Your task to perform on an android device: toggle notification dots Image 0: 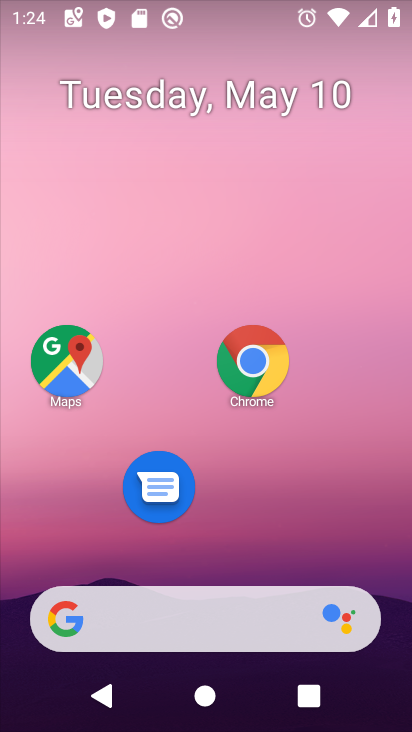
Step 0: drag from (332, 460) to (289, 55)
Your task to perform on an android device: toggle notification dots Image 1: 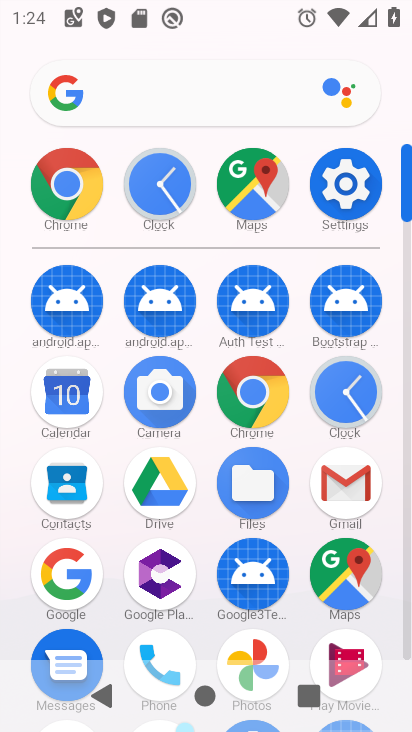
Step 1: click (329, 196)
Your task to perform on an android device: toggle notification dots Image 2: 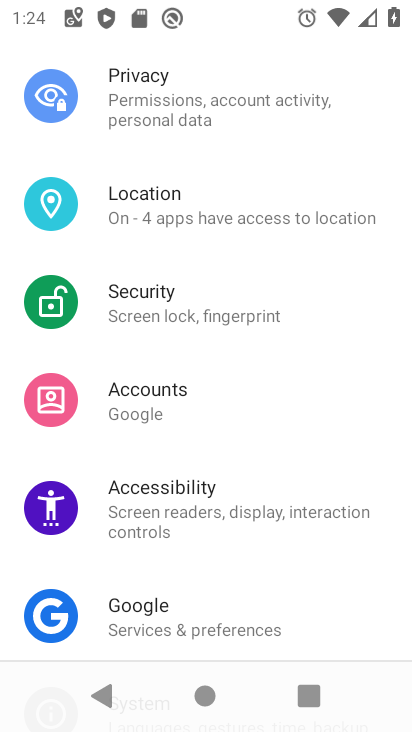
Step 2: drag from (205, 503) to (185, 123)
Your task to perform on an android device: toggle notification dots Image 3: 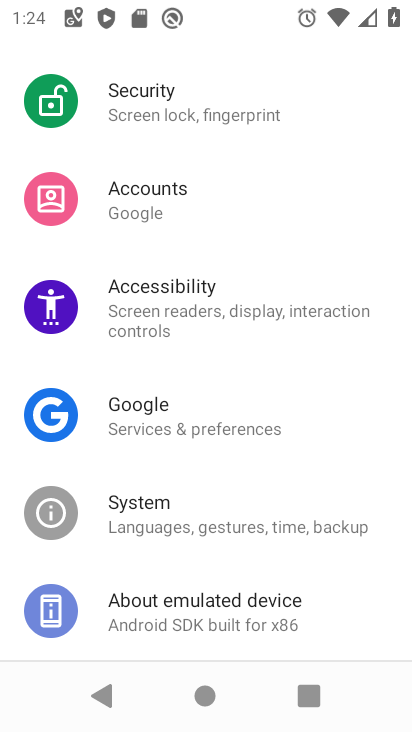
Step 3: drag from (169, 275) to (259, 697)
Your task to perform on an android device: toggle notification dots Image 4: 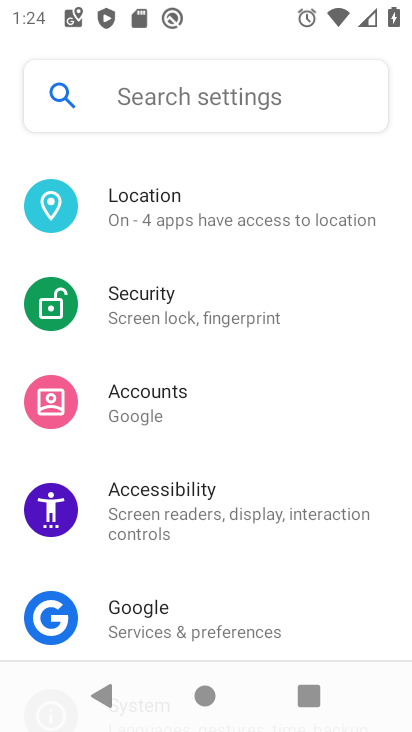
Step 4: drag from (173, 386) to (206, 622)
Your task to perform on an android device: toggle notification dots Image 5: 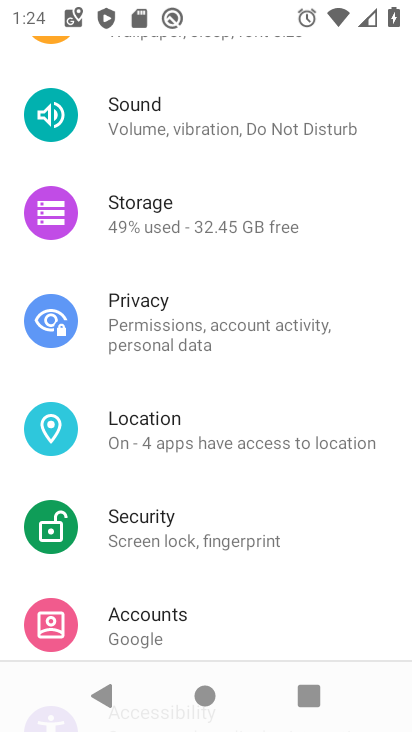
Step 5: drag from (104, 270) to (118, 476)
Your task to perform on an android device: toggle notification dots Image 6: 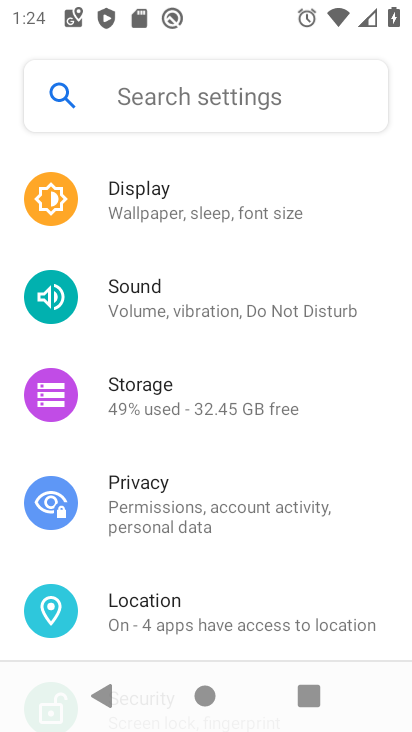
Step 6: click (118, 476)
Your task to perform on an android device: toggle notification dots Image 7: 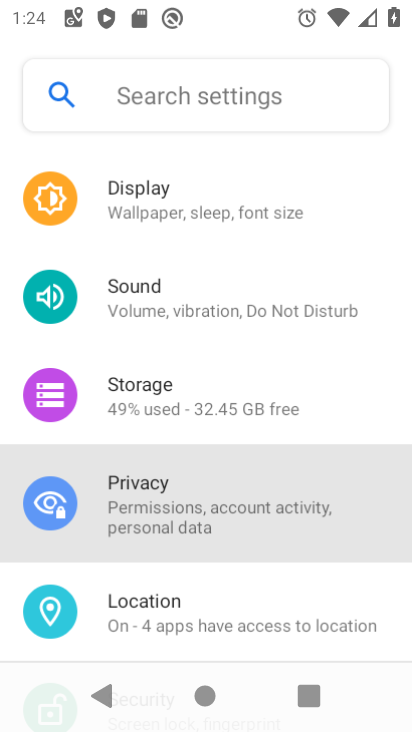
Step 7: drag from (202, 194) to (237, 413)
Your task to perform on an android device: toggle notification dots Image 8: 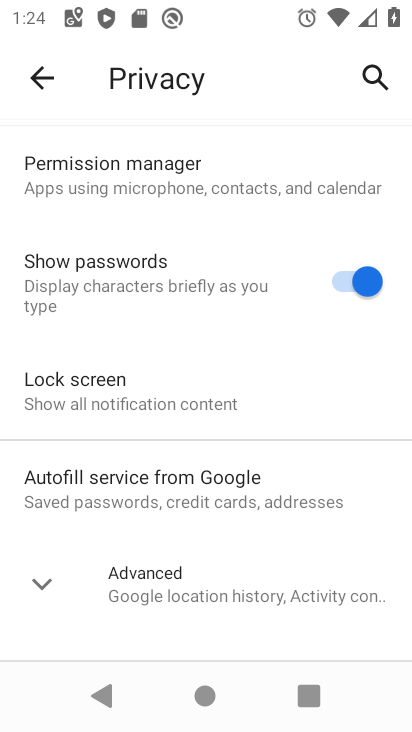
Step 8: click (26, 98)
Your task to perform on an android device: toggle notification dots Image 9: 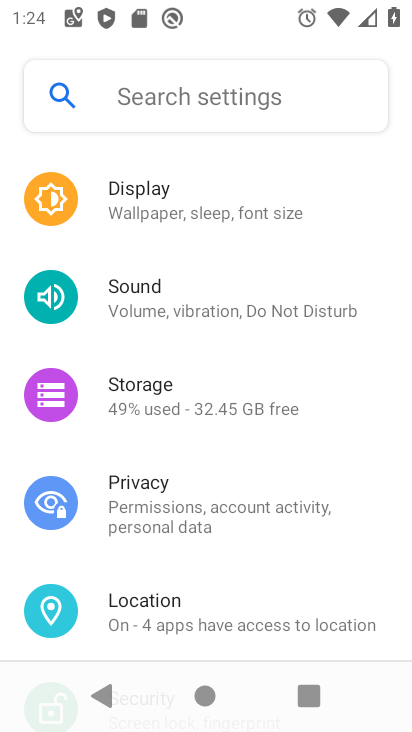
Step 9: drag from (164, 260) to (213, 529)
Your task to perform on an android device: toggle notification dots Image 10: 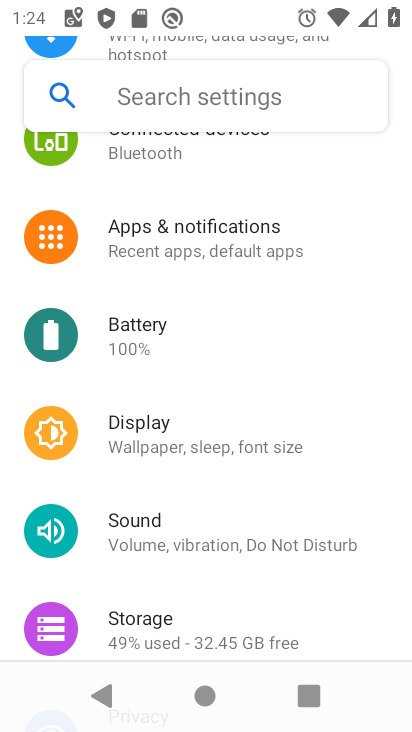
Step 10: click (193, 256)
Your task to perform on an android device: toggle notification dots Image 11: 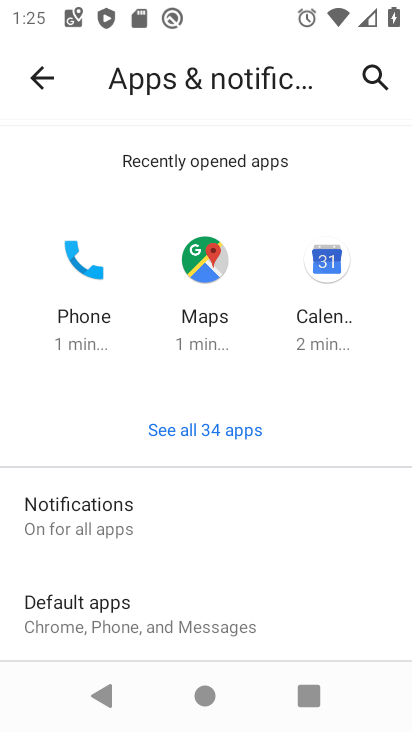
Step 11: drag from (223, 556) to (129, 280)
Your task to perform on an android device: toggle notification dots Image 12: 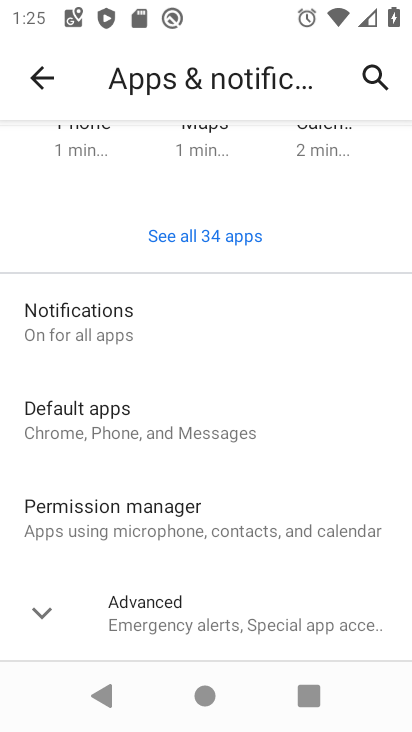
Step 12: click (108, 317)
Your task to perform on an android device: toggle notification dots Image 13: 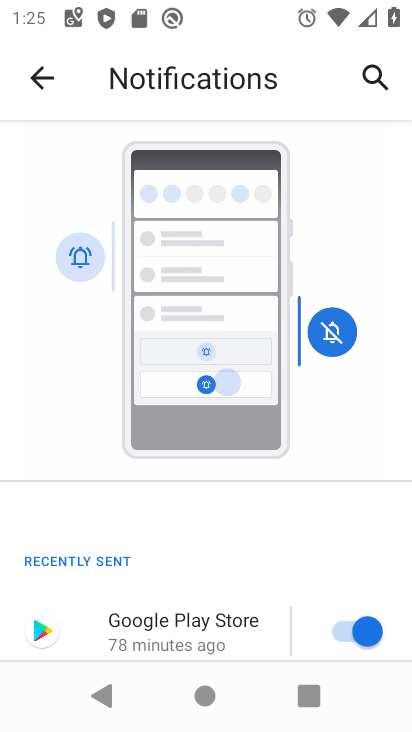
Step 13: drag from (206, 505) to (199, 226)
Your task to perform on an android device: toggle notification dots Image 14: 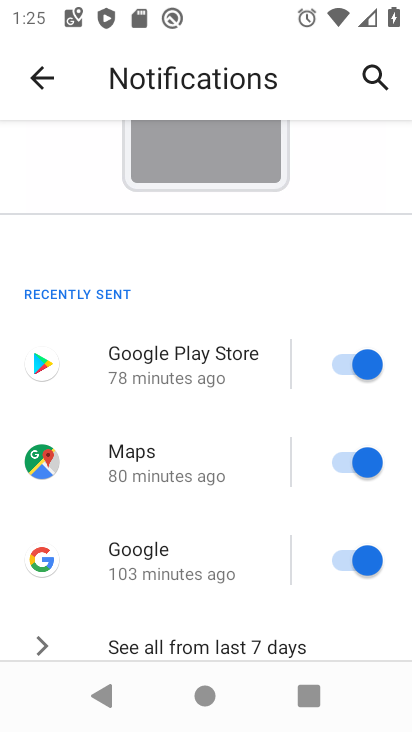
Step 14: drag from (246, 571) to (170, 244)
Your task to perform on an android device: toggle notification dots Image 15: 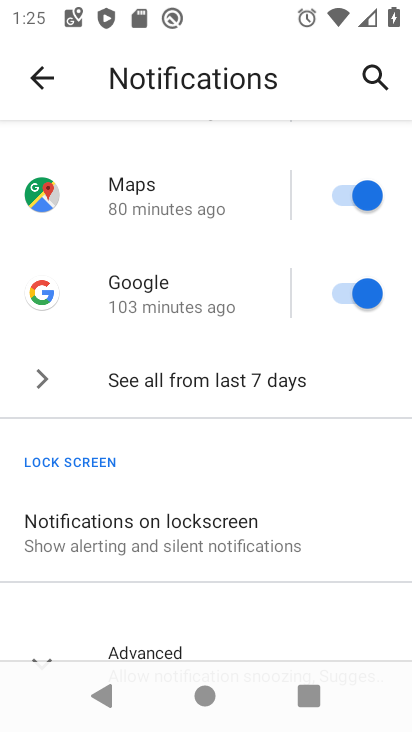
Step 15: drag from (208, 495) to (166, 237)
Your task to perform on an android device: toggle notification dots Image 16: 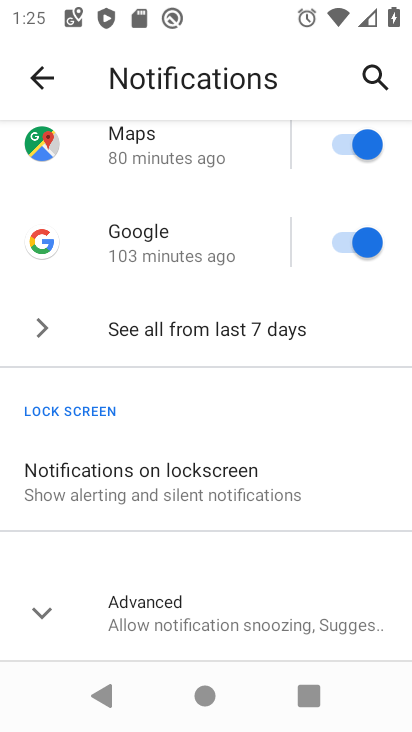
Step 16: click (92, 574)
Your task to perform on an android device: toggle notification dots Image 17: 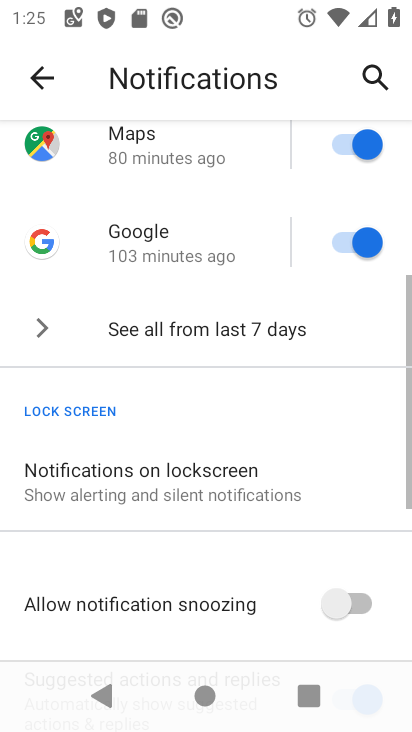
Step 17: task complete